Your task to perform on an android device: star an email in the gmail app Image 0: 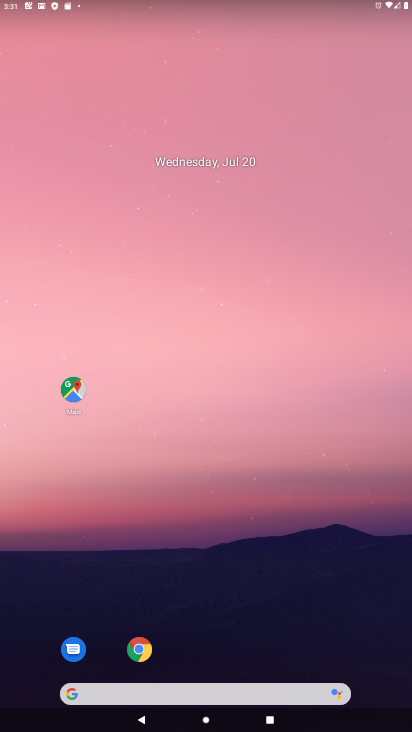
Step 0: drag from (197, 691) to (223, 73)
Your task to perform on an android device: star an email in the gmail app Image 1: 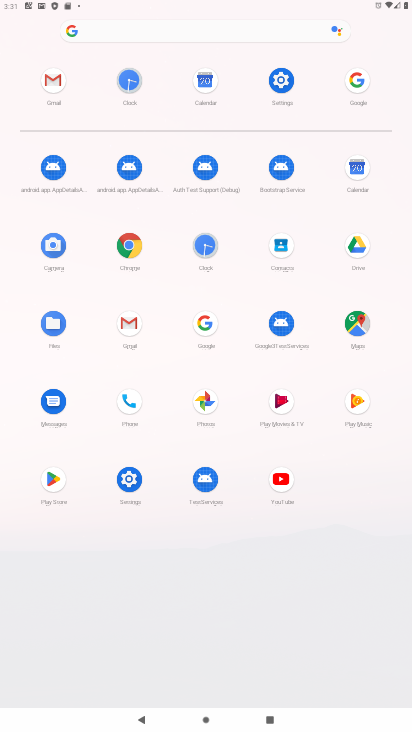
Step 1: click (53, 80)
Your task to perform on an android device: star an email in the gmail app Image 2: 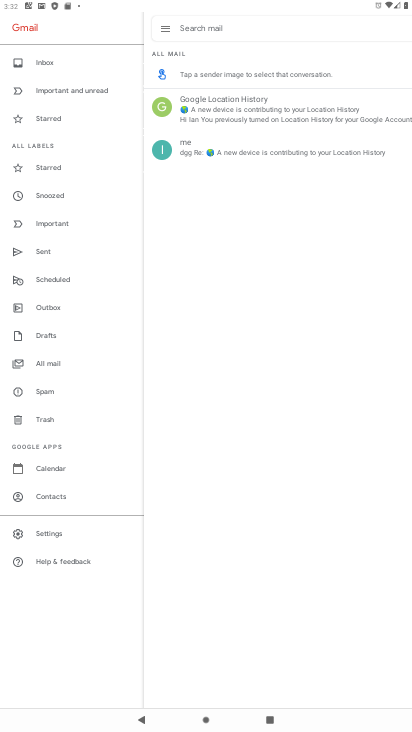
Step 2: click (226, 93)
Your task to perform on an android device: star an email in the gmail app Image 3: 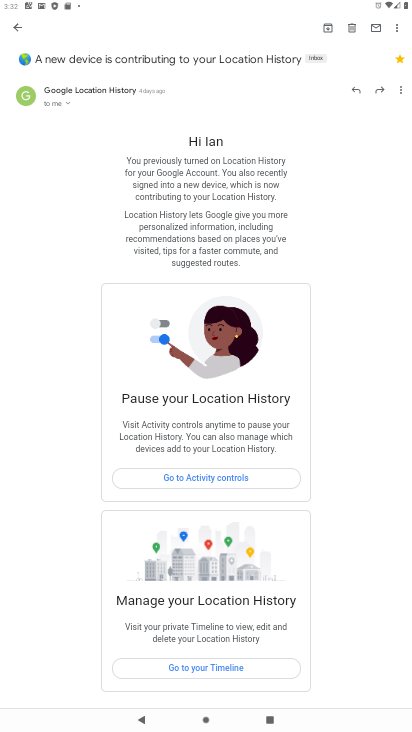
Step 3: task complete